Your task to perform on an android device: Go to CNN.com Image 0: 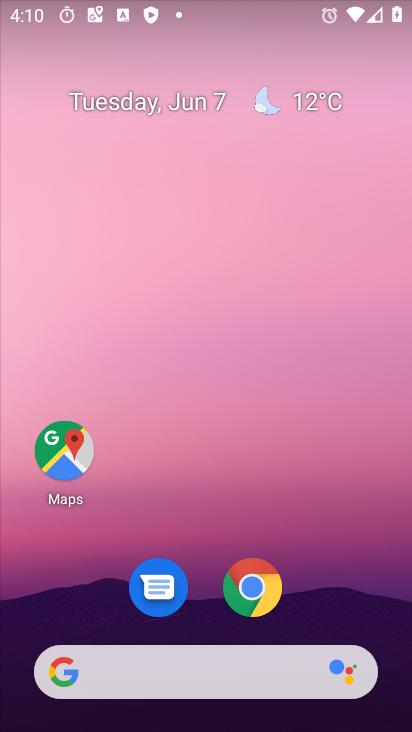
Step 0: click (257, 592)
Your task to perform on an android device: Go to CNN.com Image 1: 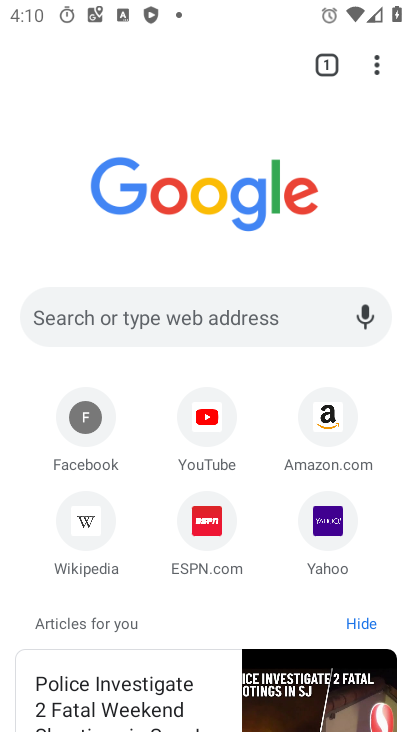
Step 1: click (210, 314)
Your task to perform on an android device: Go to CNN.com Image 2: 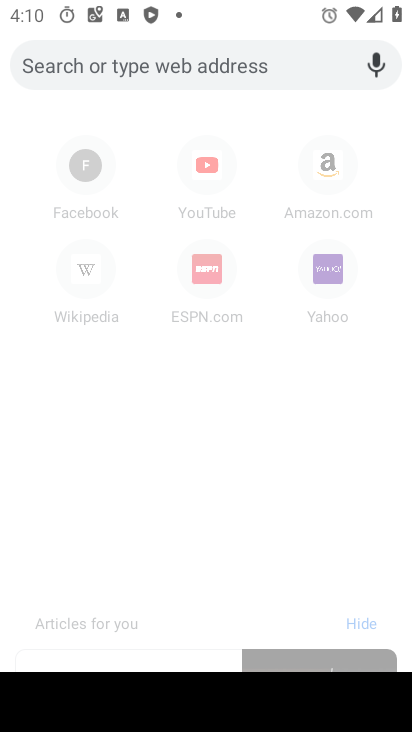
Step 2: type "cnn"
Your task to perform on an android device: Go to CNN.com Image 3: 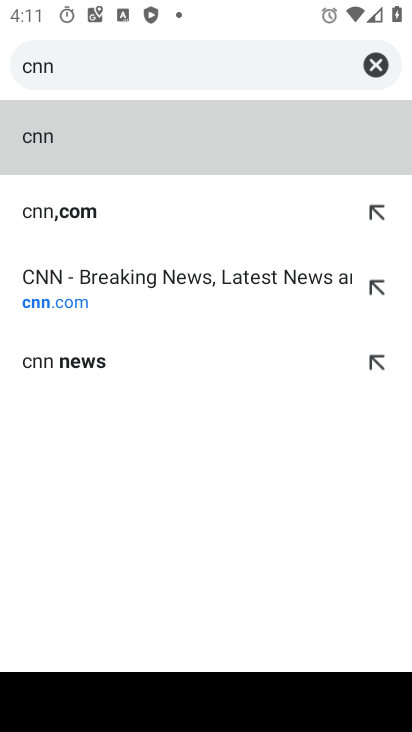
Step 3: click (269, 282)
Your task to perform on an android device: Go to CNN.com Image 4: 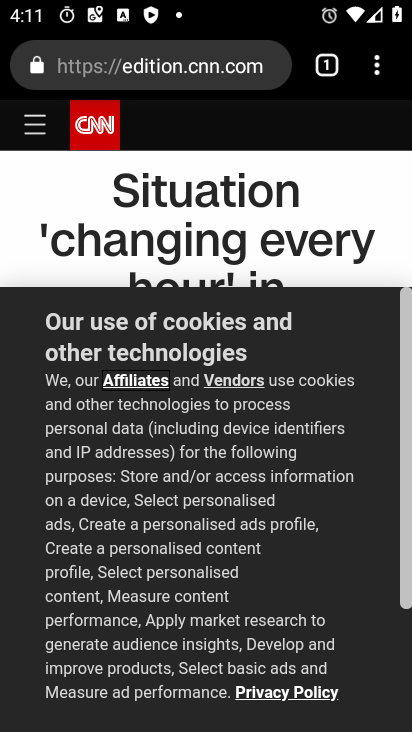
Step 4: task complete